Your task to perform on an android device: turn on sleep mode Image 0: 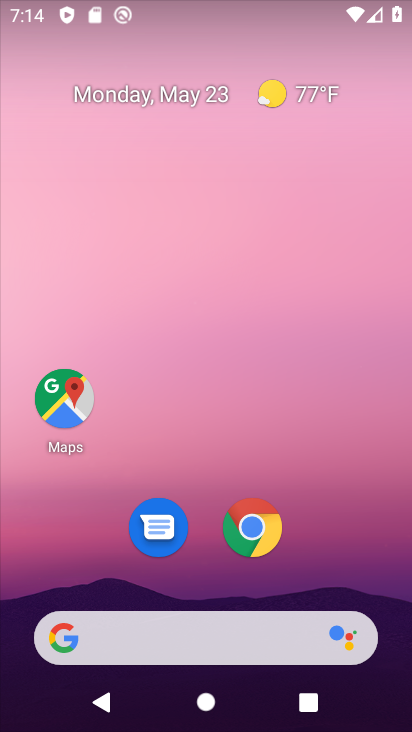
Step 0: press home button
Your task to perform on an android device: turn on sleep mode Image 1: 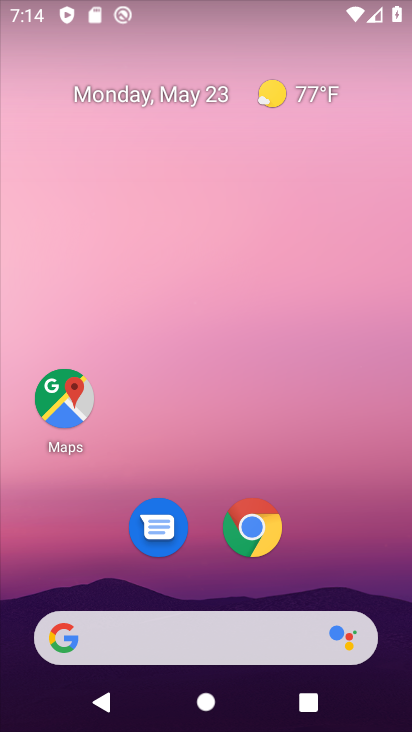
Step 1: drag from (254, 678) to (205, 132)
Your task to perform on an android device: turn on sleep mode Image 2: 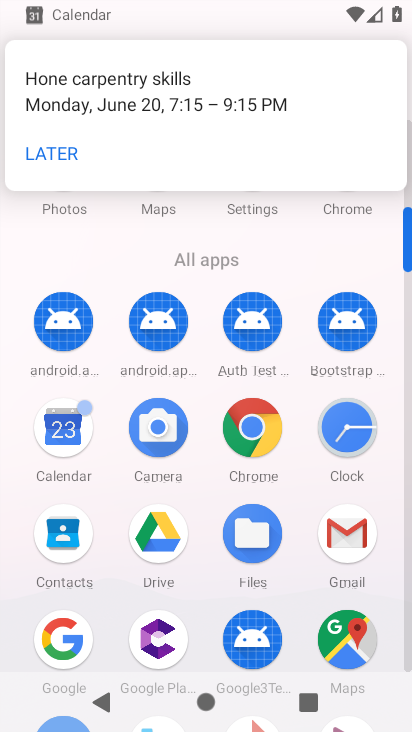
Step 2: click (56, 157)
Your task to perform on an android device: turn on sleep mode Image 3: 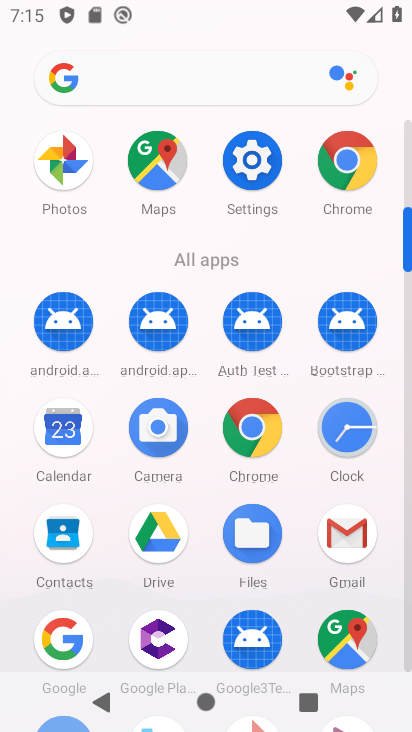
Step 3: click (218, 151)
Your task to perform on an android device: turn on sleep mode Image 4: 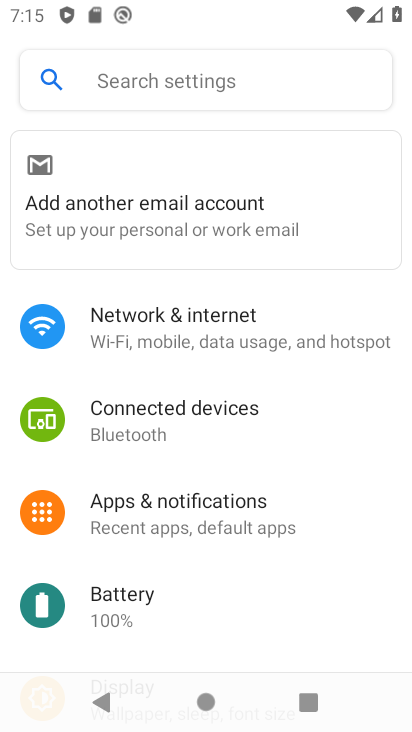
Step 4: click (166, 90)
Your task to perform on an android device: turn on sleep mode Image 5: 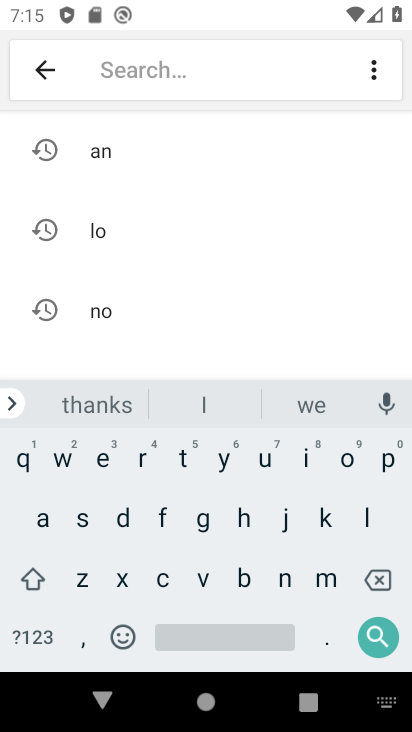
Step 5: click (89, 518)
Your task to perform on an android device: turn on sleep mode Image 6: 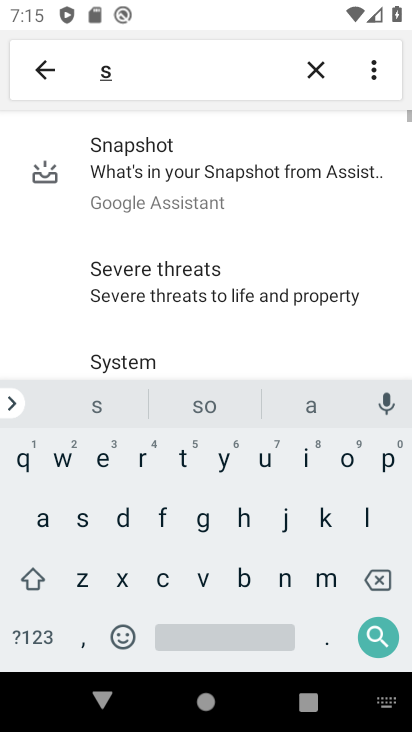
Step 6: click (370, 509)
Your task to perform on an android device: turn on sleep mode Image 7: 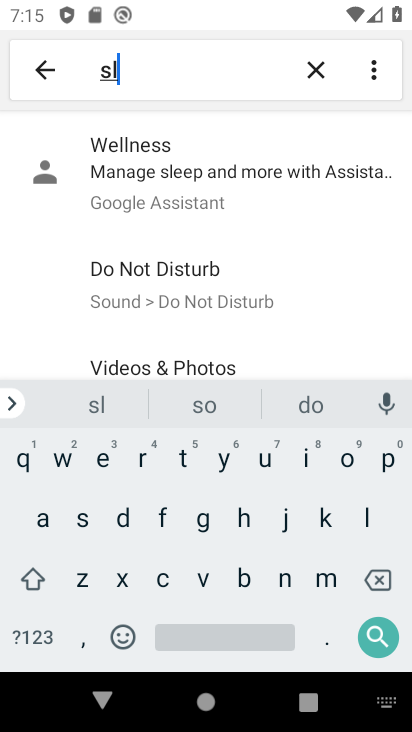
Step 7: click (181, 283)
Your task to perform on an android device: turn on sleep mode Image 8: 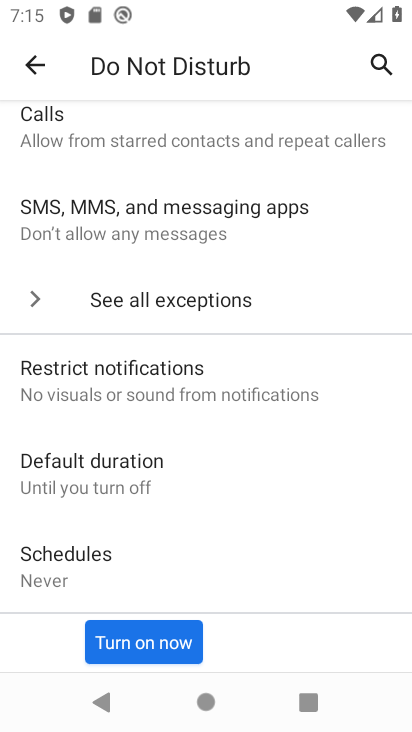
Step 8: click (172, 648)
Your task to perform on an android device: turn on sleep mode Image 9: 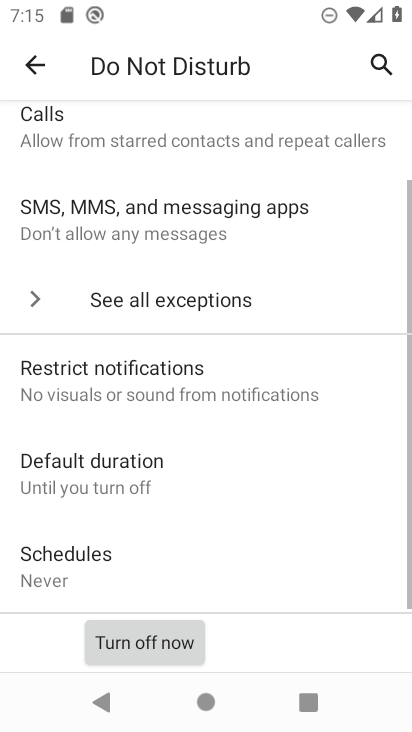
Step 9: task complete